Your task to perform on an android device: open app "Gboard" (install if not already installed) Image 0: 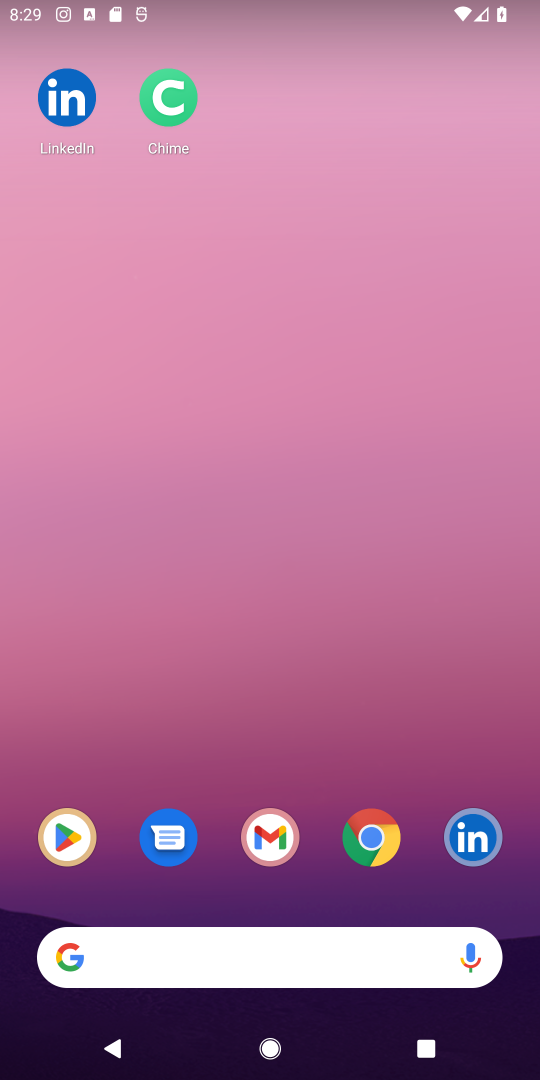
Step 0: click (79, 830)
Your task to perform on an android device: open app "Gboard" (install if not already installed) Image 1: 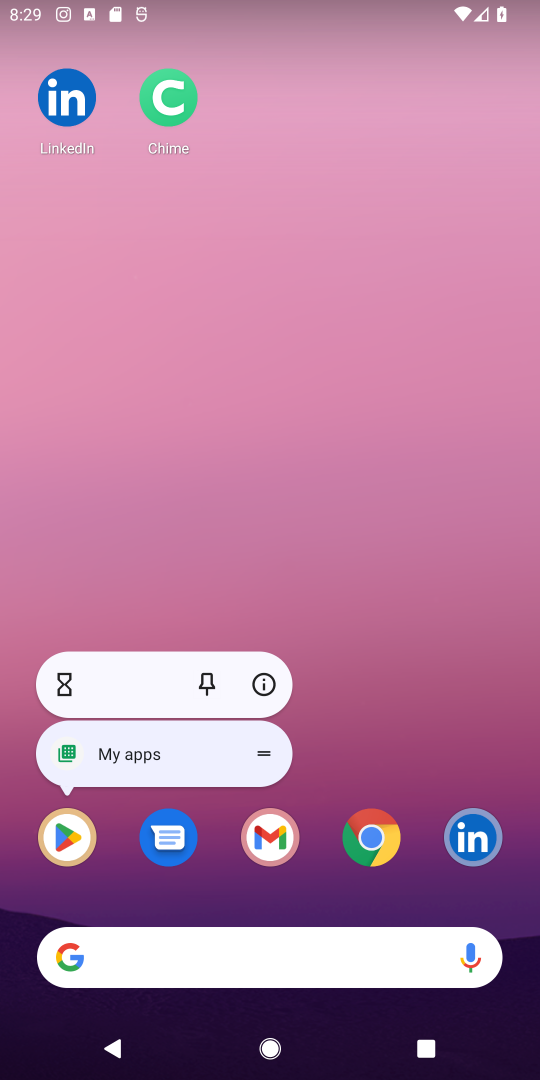
Step 1: click (66, 845)
Your task to perform on an android device: open app "Gboard" (install if not already installed) Image 2: 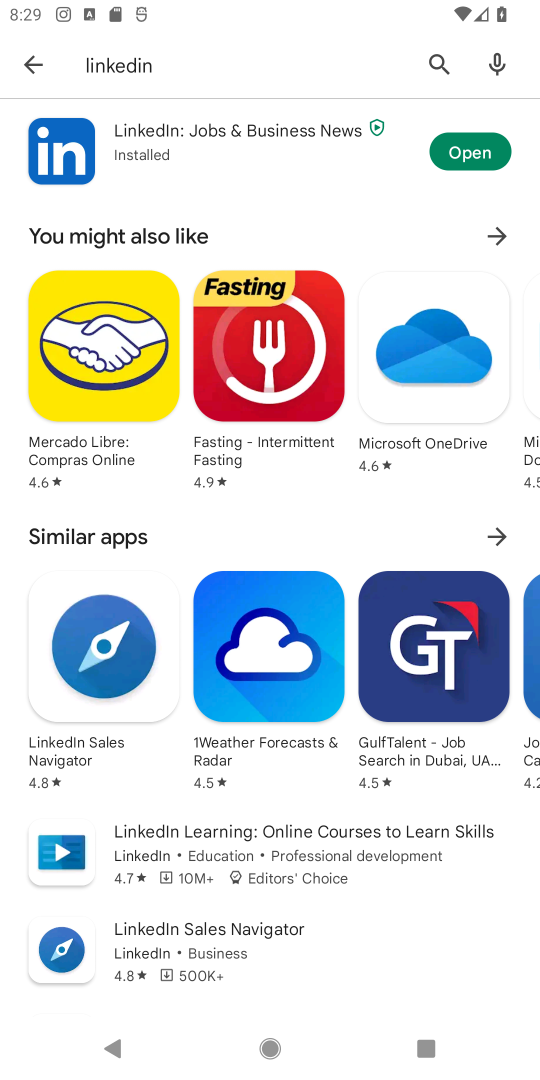
Step 2: click (436, 70)
Your task to perform on an android device: open app "Gboard" (install if not already installed) Image 3: 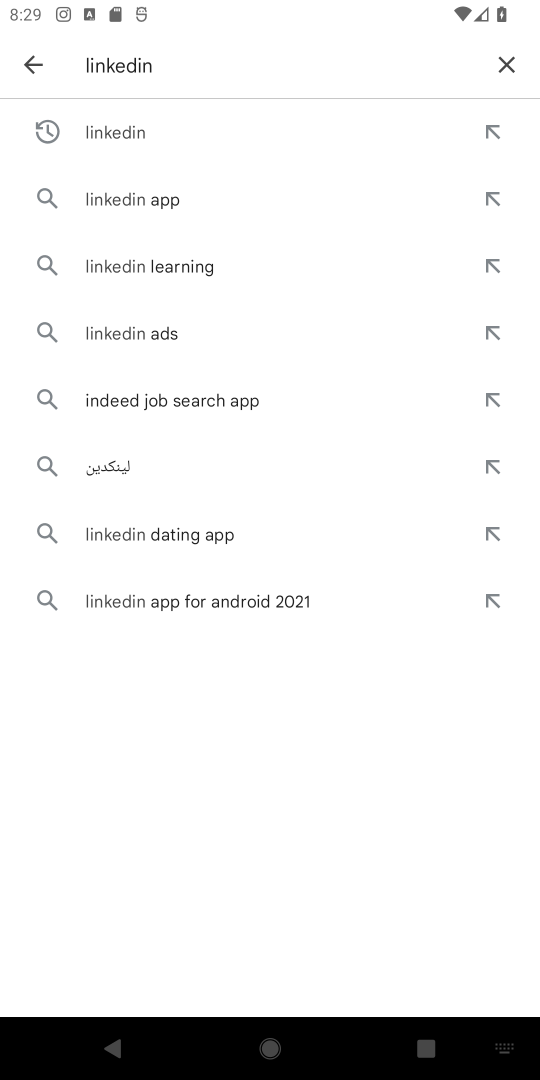
Step 3: click (507, 59)
Your task to perform on an android device: open app "Gboard" (install if not already installed) Image 4: 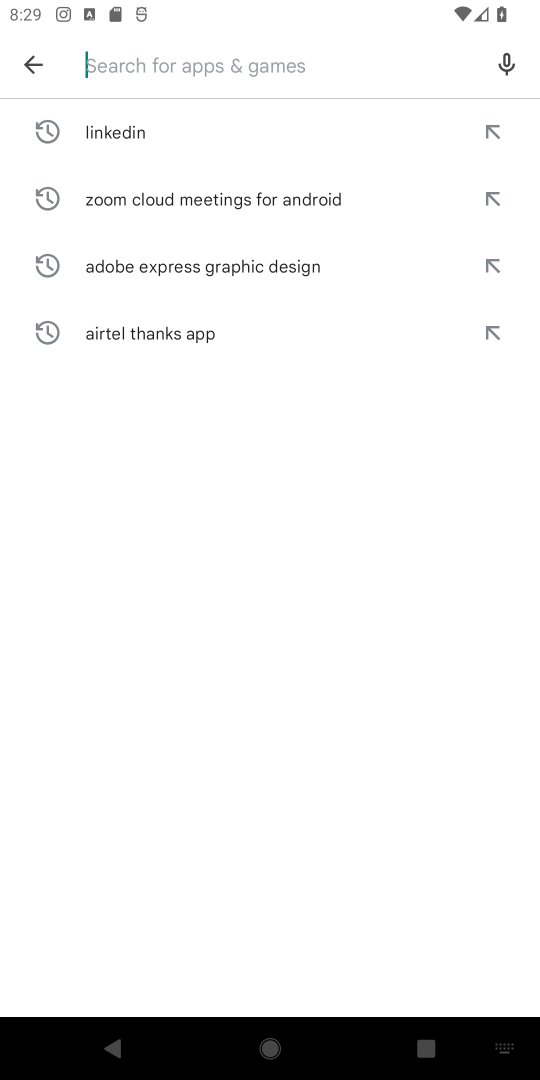
Step 4: type "Gboard"
Your task to perform on an android device: open app "Gboard" (install if not already installed) Image 5: 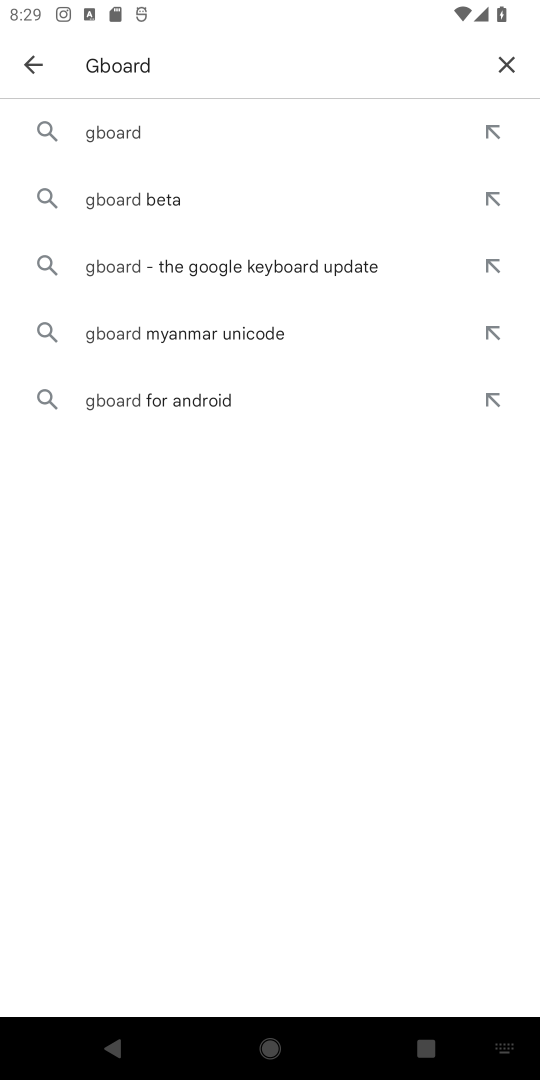
Step 5: click (118, 135)
Your task to perform on an android device: open app "Gboard" (install if not already installed) Image 6: 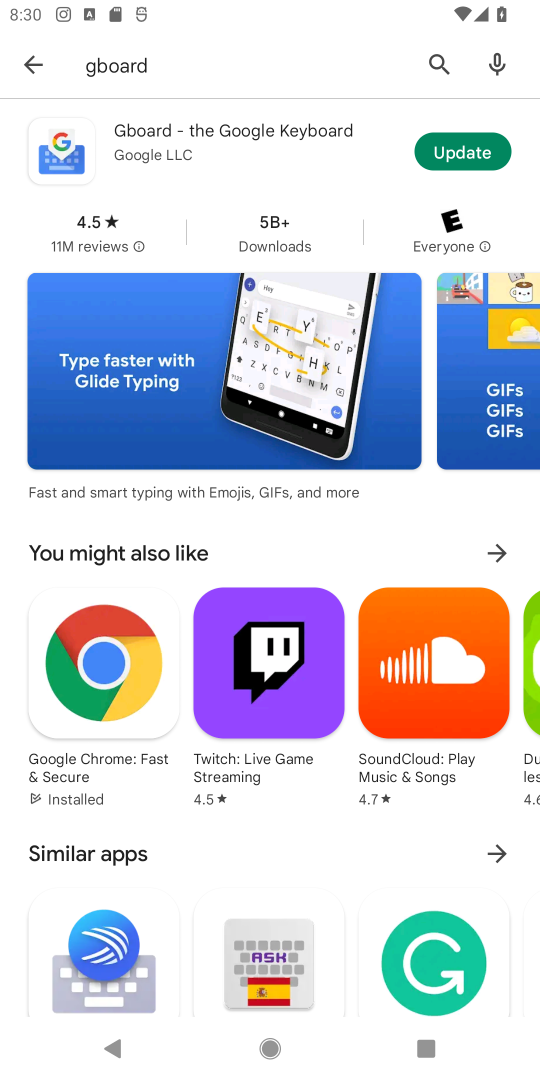
Step 6: click (138, 136)
Your task to perform on an android device: open app "Gboard" (install if not already installed) Image 7: 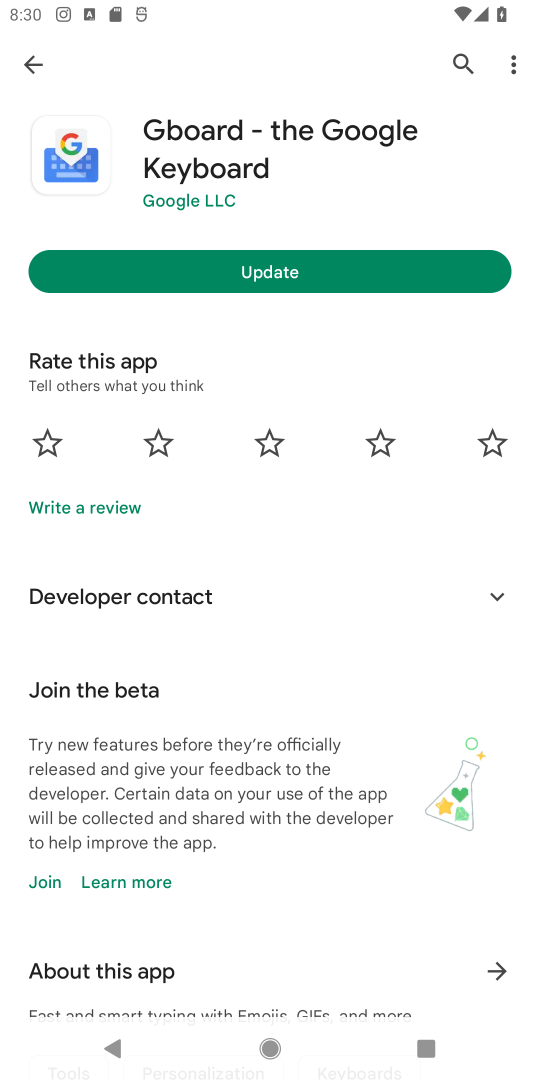
Step 7: click (180, 136)
Your task to perform on an android device: open app "Gboard" (install if not already installed) Image 8: 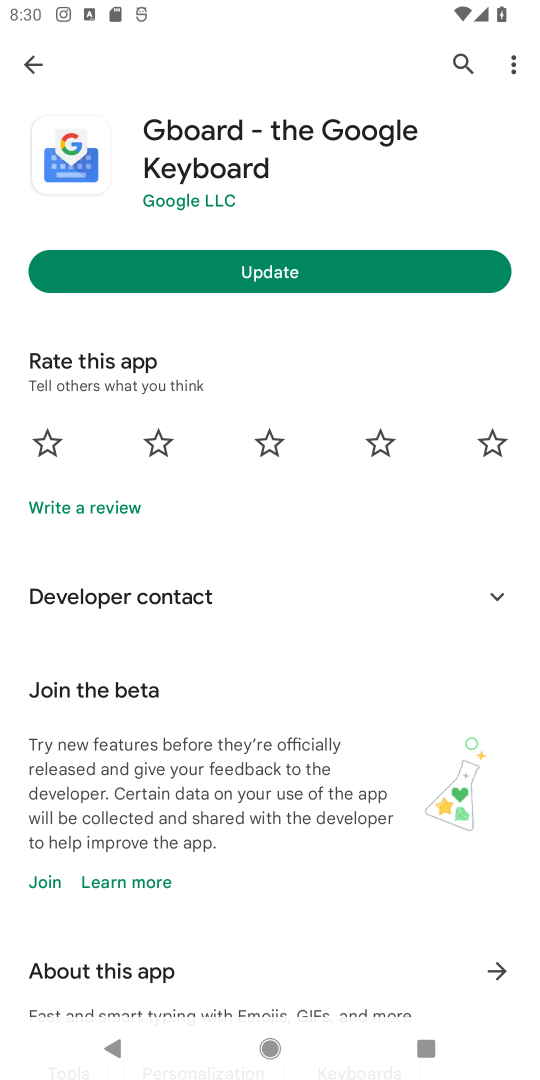
Step 8: task complete